Your task to perform on an android device: toggle sleep mode Image 0: 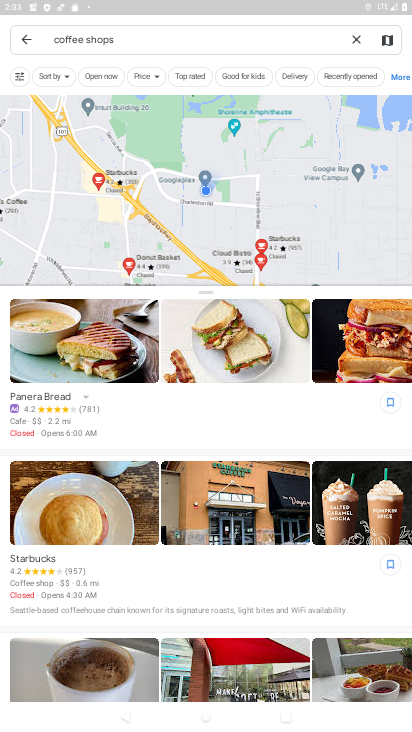
Step 0: press home button
Your task to perform on an android device: toggle sleep mode Image 1: 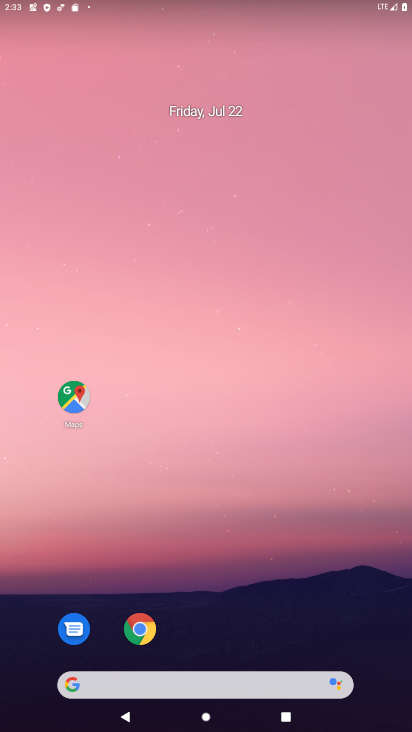
Step 1: drag from (165, 677) to (178, 65)
Your task to perform on an android device: toggle sleep mode Image 2: 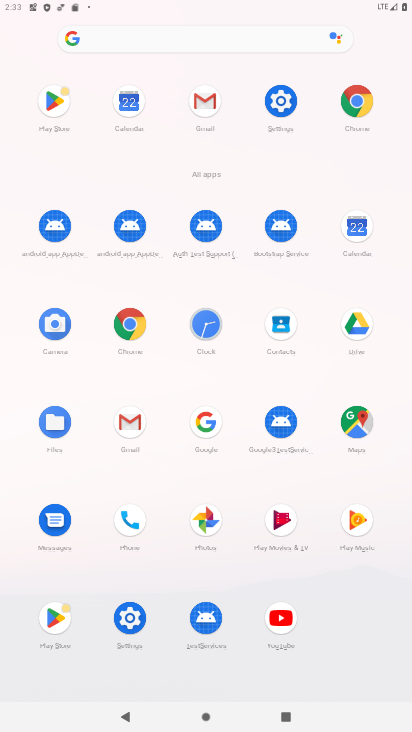
Step 2: click (128, 620)
Your task to perform on an android device: toggle sleep mode Image 3: 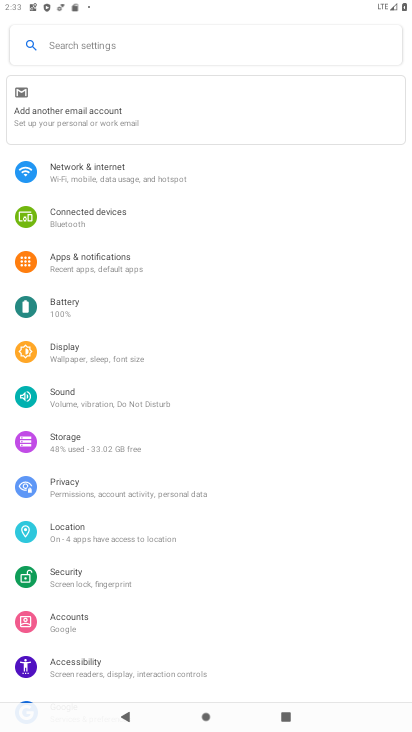
Step 3: click (76, 359)
Your task to perform on an android device: toggle sleep mode Image 4: 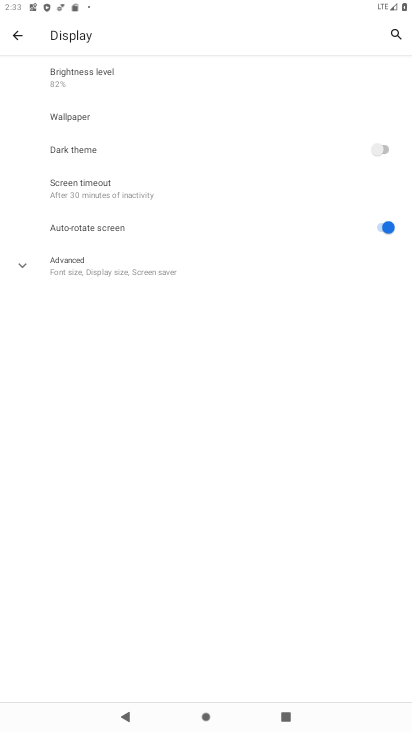
Step 4: click (86, 258)
Your task to perform on an android device: toggle sleep mode Image 5: 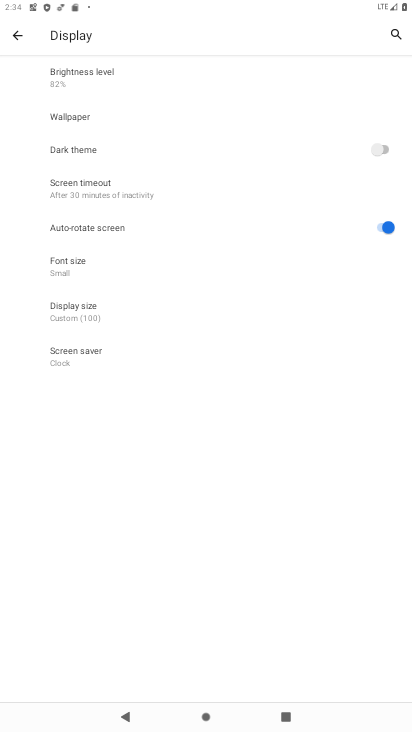
Step 5: task complete